Your task to perform on an android device: open wifi settings Image 0: 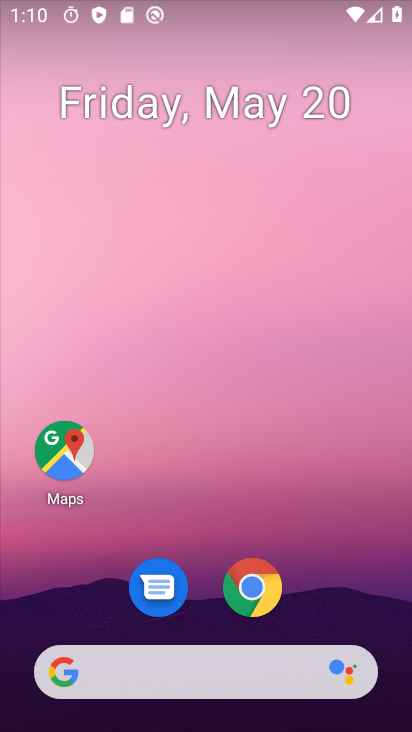
Step 0: drag from (323, 611) to (329, 210)
Your task to perform on an android device: open wifi settings Image 1: 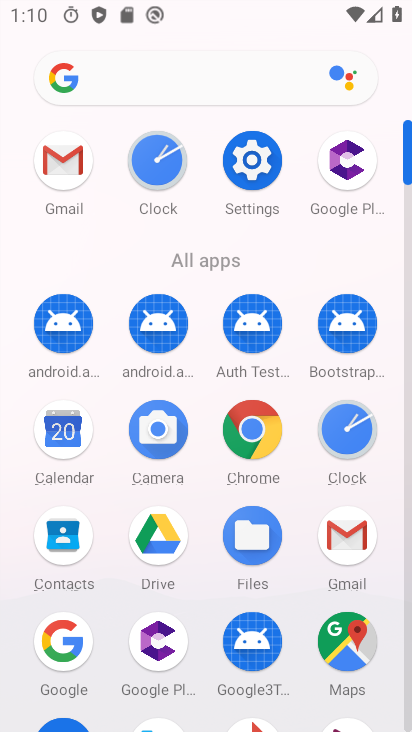
Step 1: click (250, 157)
Your task to perform on an android device: open wifi settings Image 2: 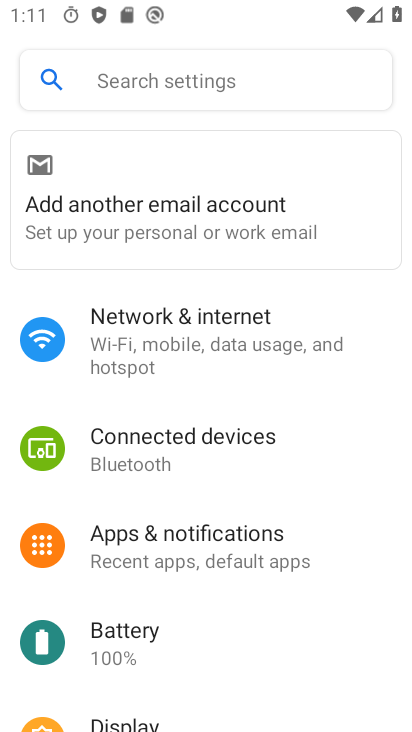
Step 2: click (193, 335)
Your task to perform on an android device: open wifi settings Image 3: 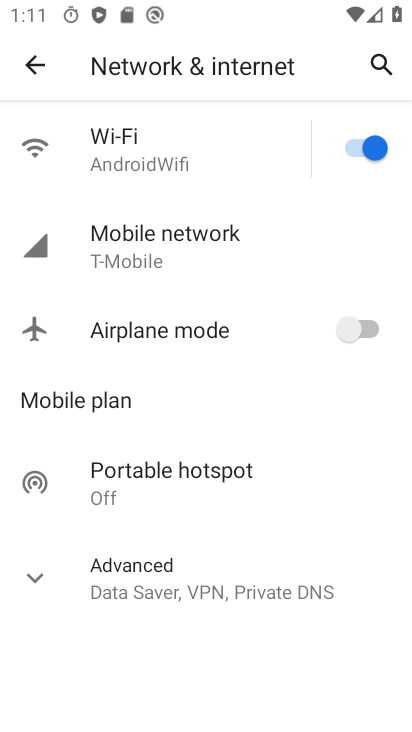
Step 3: click (206, 120)
Your task to perform on an android device: open wifi settings Image 4: 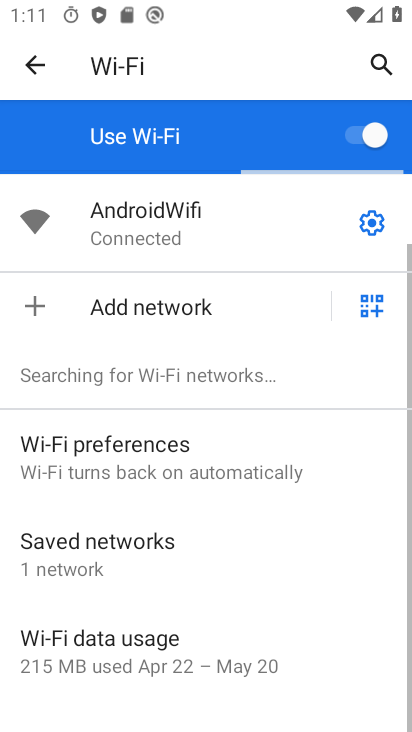
Step 4: click (374, 235)
Your task to perform on an android device: open wifi settings Image 5: 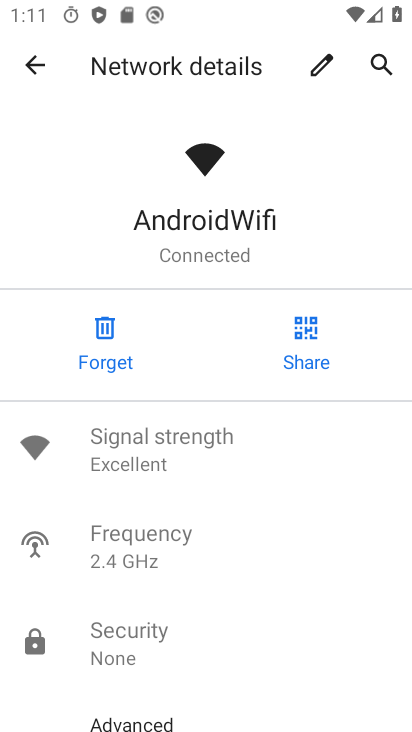
Step 5: task complete